Your task to perform on an android device: Go to privacy settings Image 0: 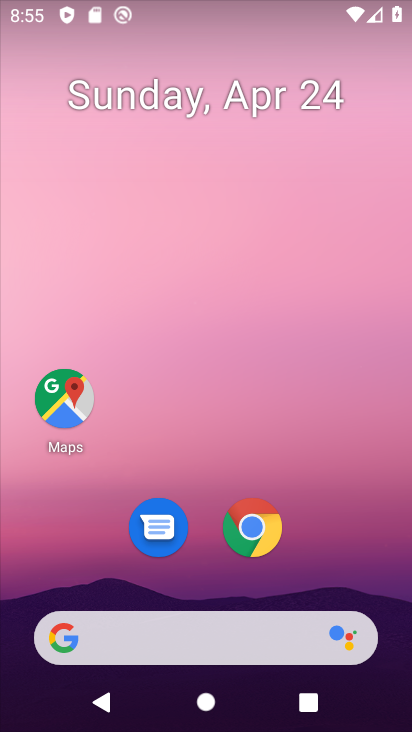
Step 0: drag from (227, 519) to (304, 147)
Your task to perform on an android device: Go to privacy settings Image 1: 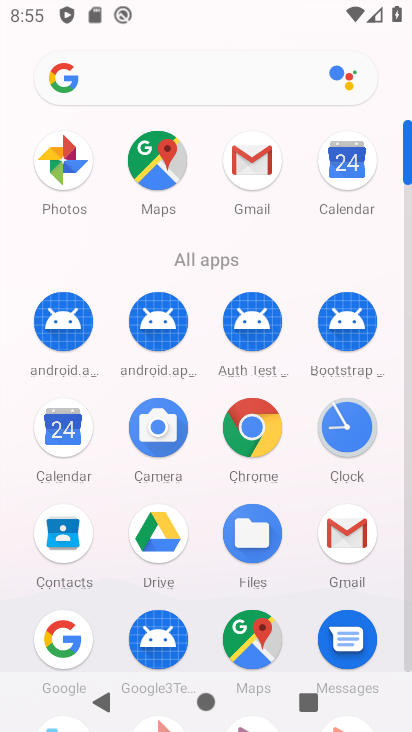
Step 1: drag from (175, 499) to (285, 48)
Your task to perform on an android device: Go to privacy settings Image 2: 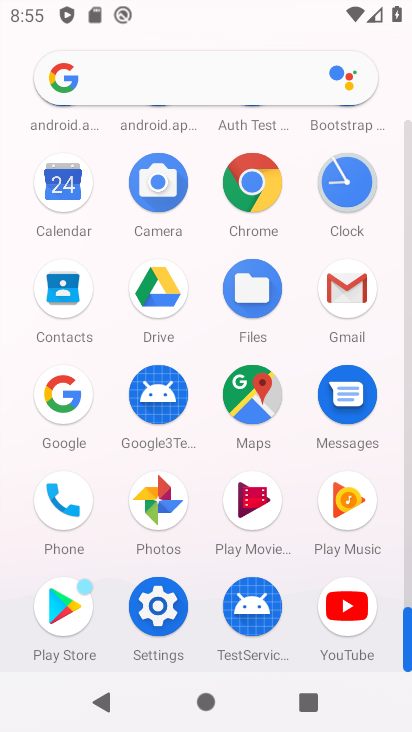
Step 2: click (156, 620)
Your task to perform on an android device: Go to privacy settings Image 3: 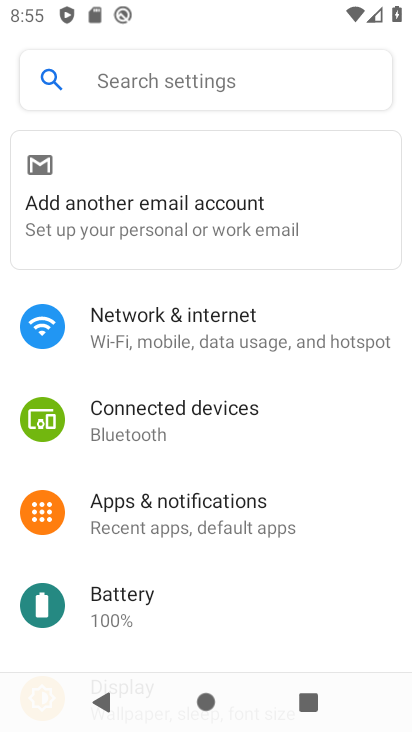
Step 3: click (148, 208)
Your task to perform on an android device: Go to privacy settings Image 4: 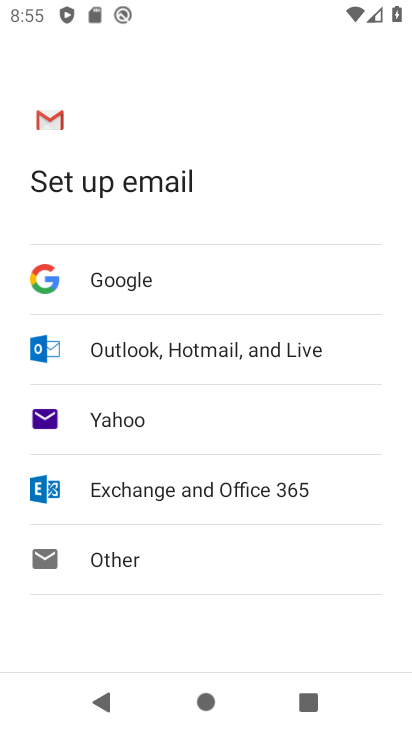
Step 4: press back button
Your task to perform on an android device: Go to privacy settings Image 5: 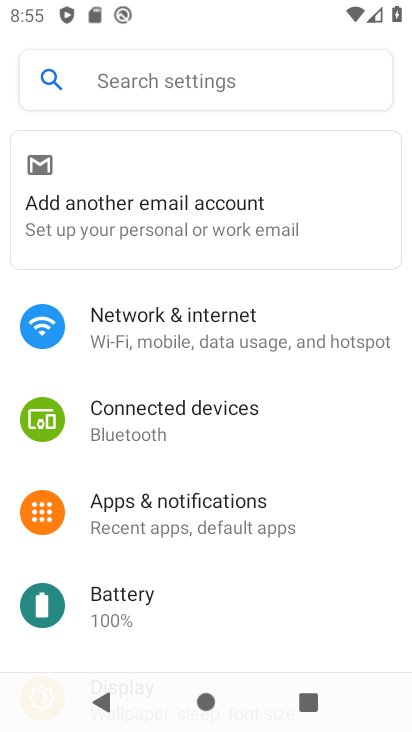
Step 5: drag from (195, 580) to (288, 160)
Your task to perform on an android device: Go to privacy settings Image 6: 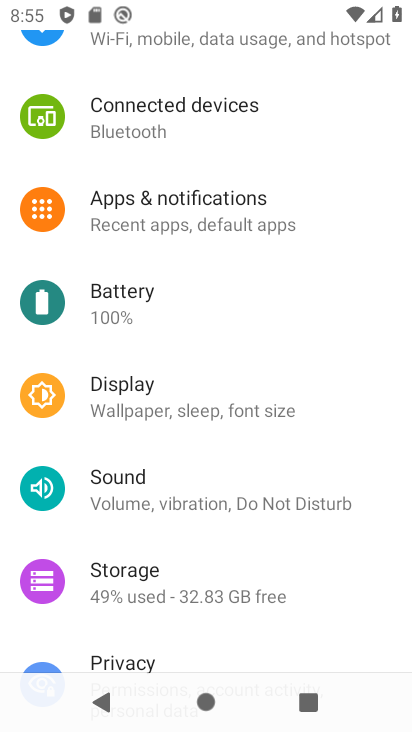
Step 6: click (114, 663)
Your task to perform on an android device: Go to privacy settings Image 7: 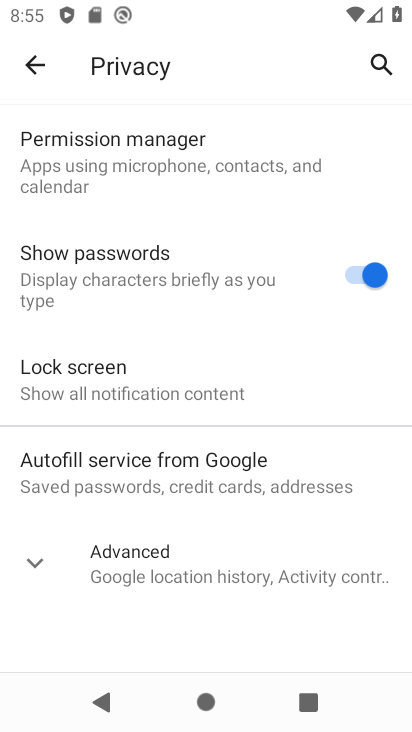
Step 7: task complete